Your task to perform on an android device: find which apps use the phone's location Image 0: 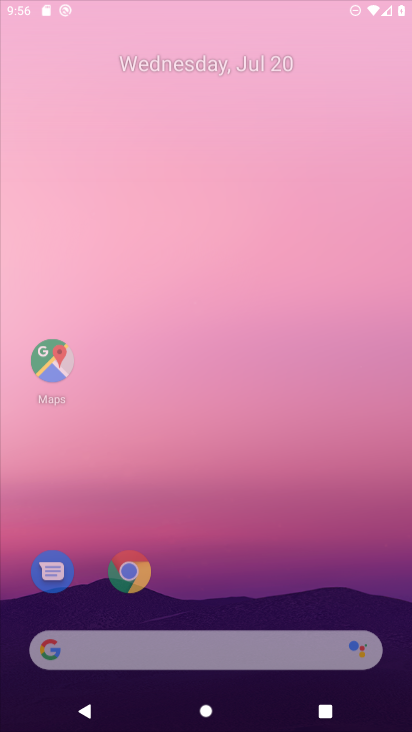
Step 0: click (172, 77)
Your task to perform on an android device: find which apps use the phone's location Image 1: 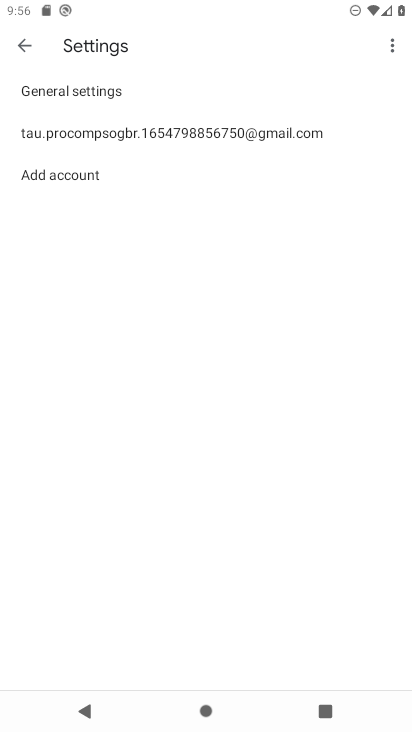
Step 1: press home button
Your task to perform on an android device: find which apps use the phone's location Image 2: 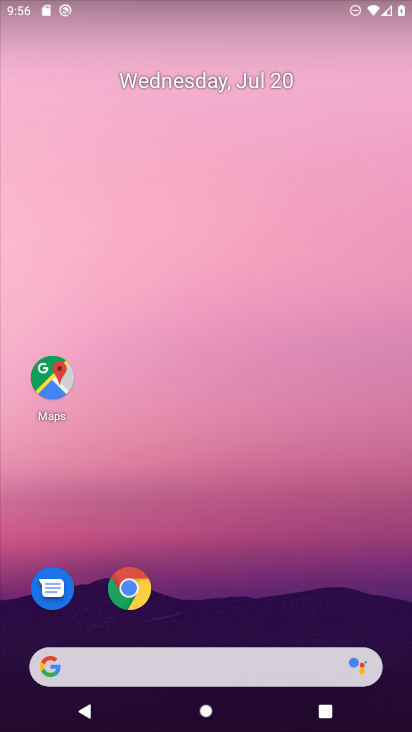
Step 2: drag from (208, 609) to (237, 97)
Your task to perform on an android device: find which apps use the phone's location Image 3: 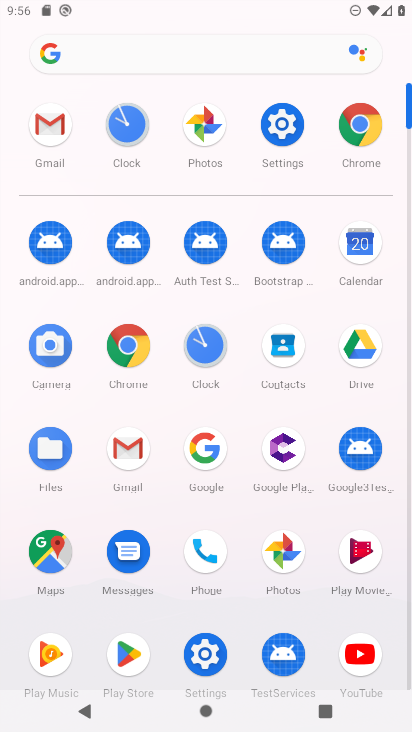
Step 3: click (293, 135)
Your task to perform on an android device: find which apps use the phone's location Image 4: 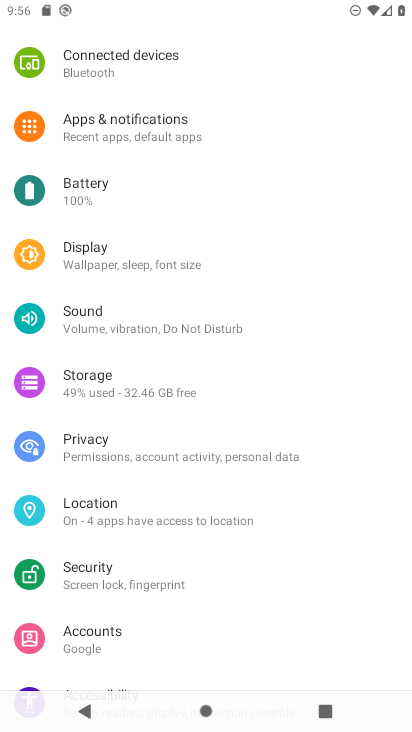
Step 4: click (80, 496)
Your task to perform on an android device: find which apps use the phone's location Image 5: 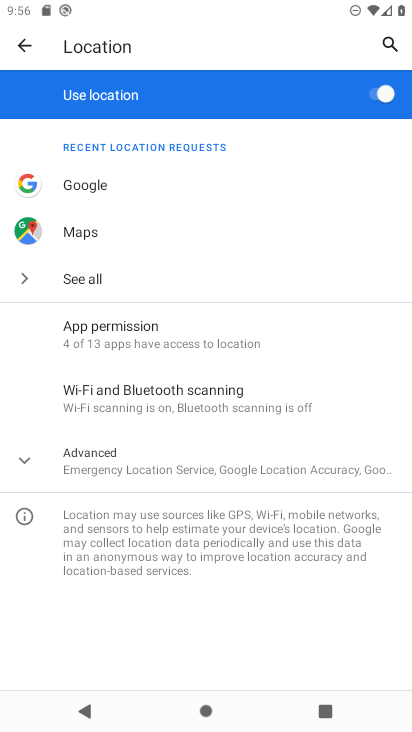
Step 5: click (90, 282)
Your task to perform on an android device: find which apps use the phone's location Image 6: 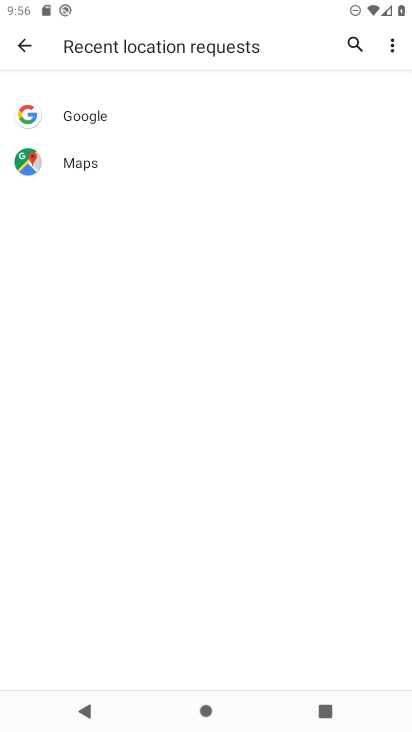
Step 6: task complete